Your task to perform on an android device: stop showing notifications on the lock screen Image 0: 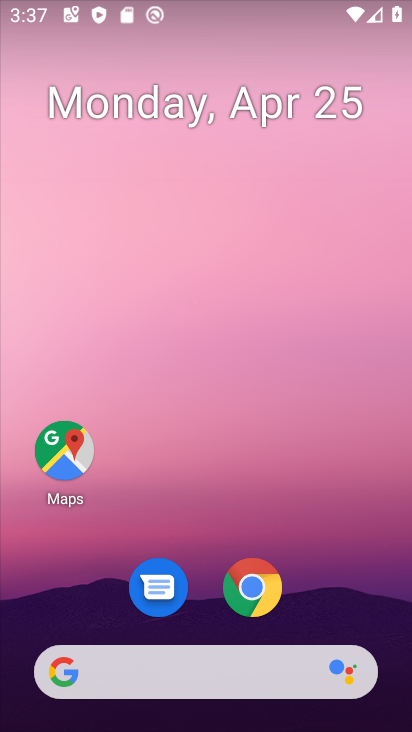
Step 0: drag from (211, 613) to (257, 193)
Your task to perform on an android device: stop showing notifications on the lock screen Image 1: 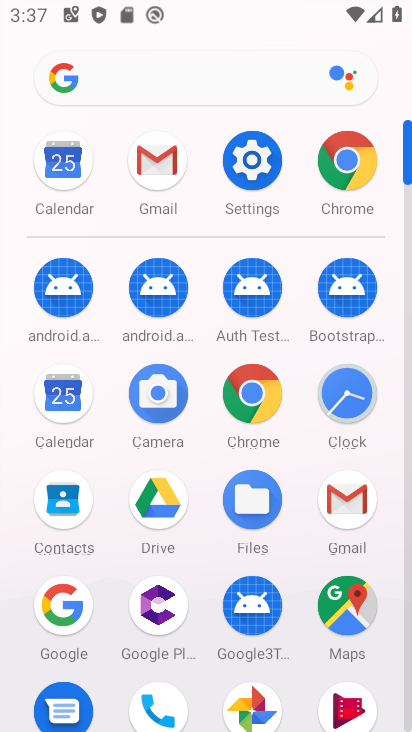
Step 1: click (256, 151)
Your task to perform on an android device: stop showing notifications on the lock screen Image 2: 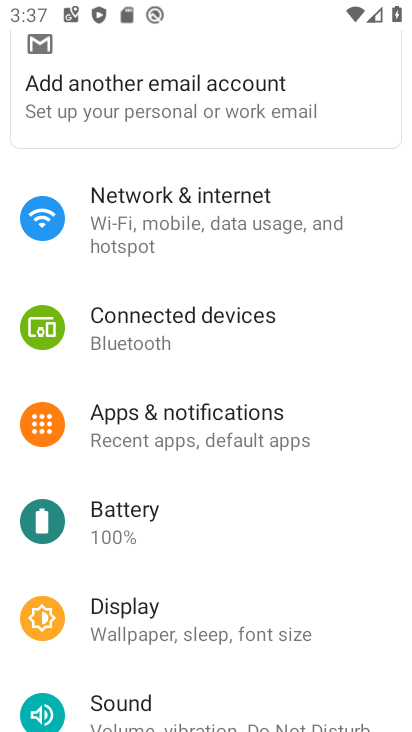
Step 2: click (173, 426)
Your task to perform on an android device: stop showing notifications on the lock screen Image 3: 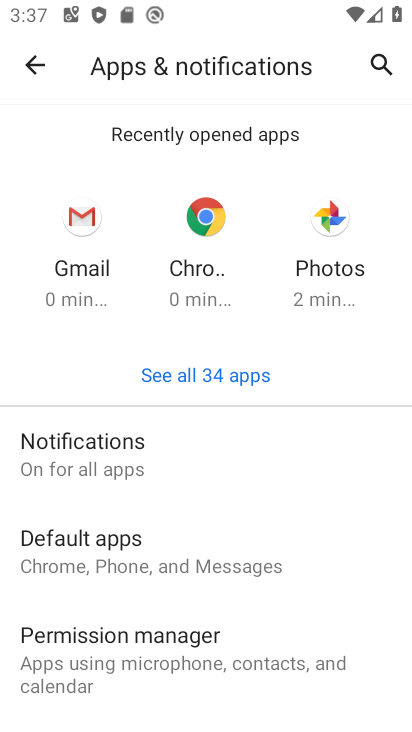
Step 3: click (96, 466)
Your task to perform on an android device: stop showing notifications on the lock screen Image 4: 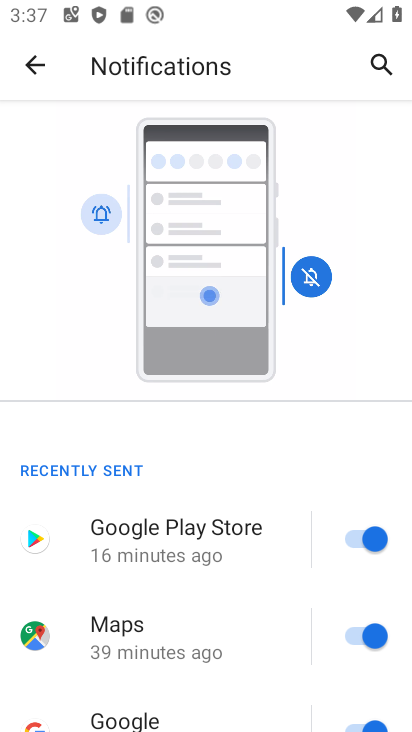
Step 4: drag from (191, 588) to (251, 86)
Your task to perform on an android device: stop showing notifications on the lock screen Image 5: 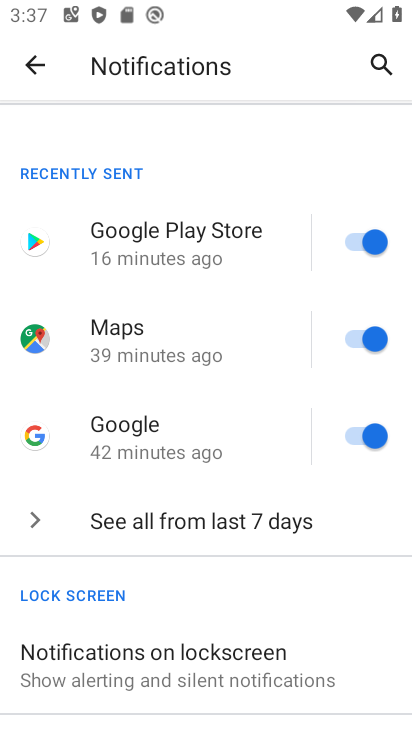
Step 5: click (144, 656)
Your task to perform on an android device: stop showing notifications on the lock screen Image 6: 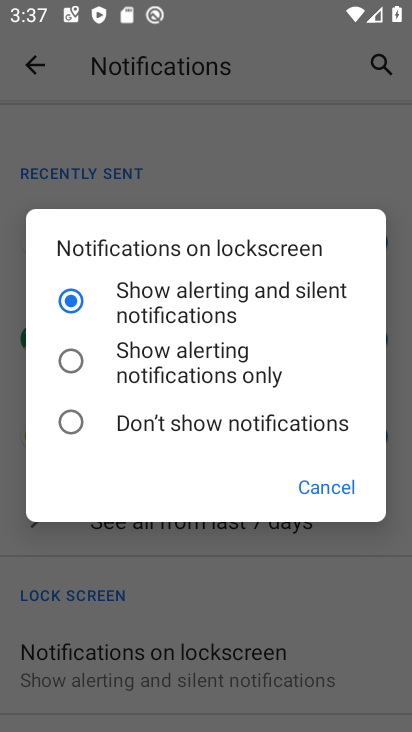
Step 6: click (80, 429)
Your task to perform on an android device: stop showing notifications on the lock screen Image 7: 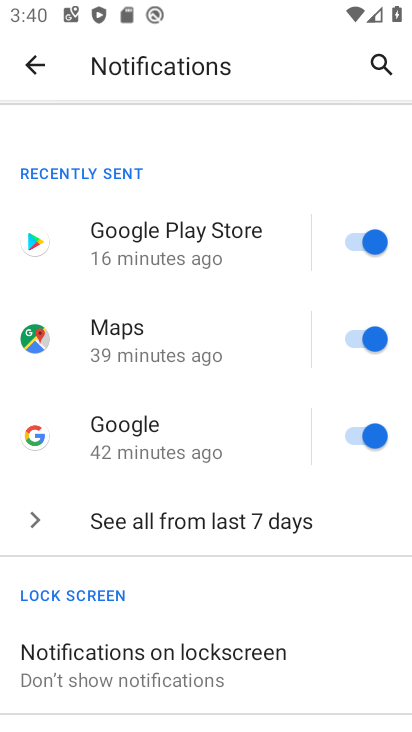
Step 7: task complete